Your task to perform on an android device: Search for pizza restaurants on Maps Image 0: 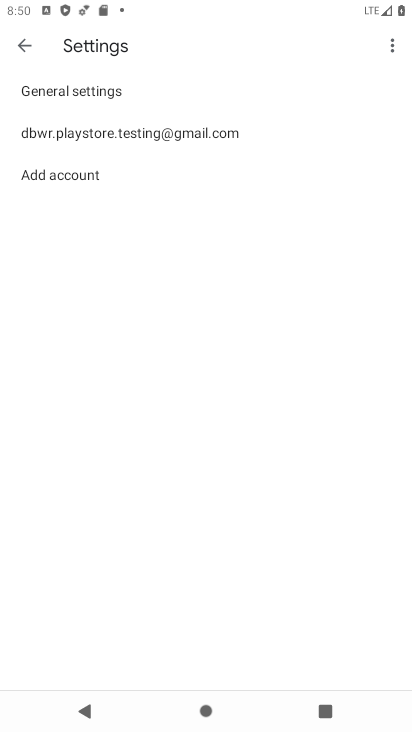
Step 0: press home button
Your task to perform on an android device: Search for pizza restaurants on Maps Image 1: 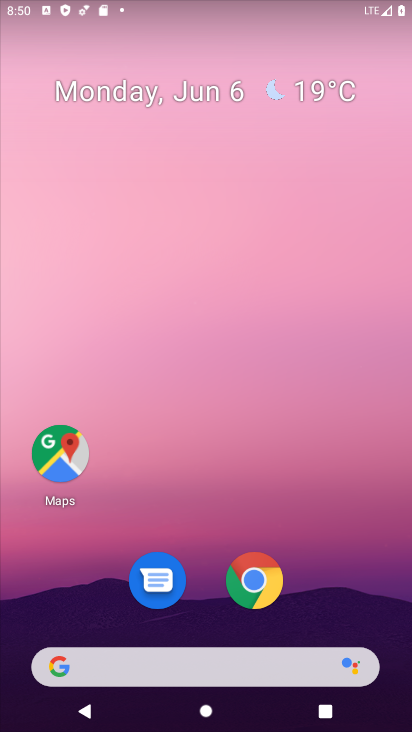
Step 1: drag from (331, 583) to (265, 7)
Your task to perform on an android device: Search for pizza restaurants on Maps Image 2: 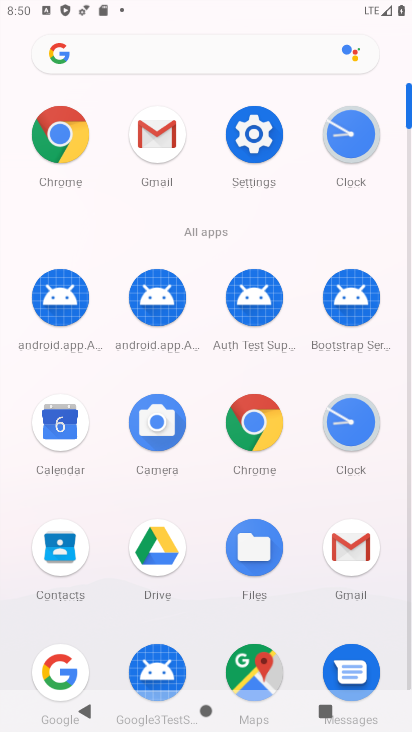
Step 2: click (248, 664)
Your task to perform on an android device: Search for pizza restaurants on Maps Image 3: 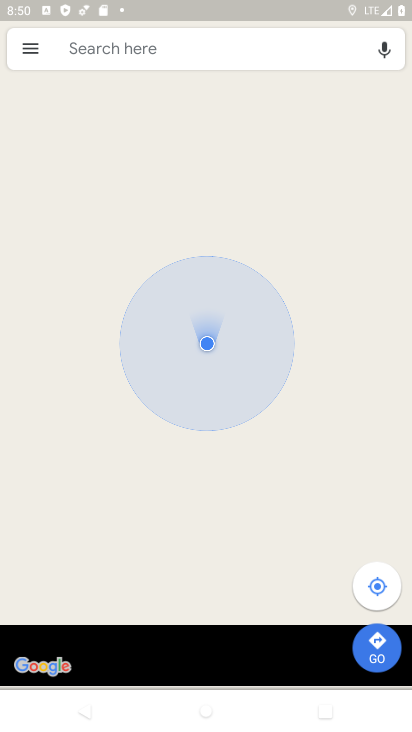
Step 3: click (162, 39)
Your task to perform on an android device: Search for pizza restaurants on Maps Image 4: 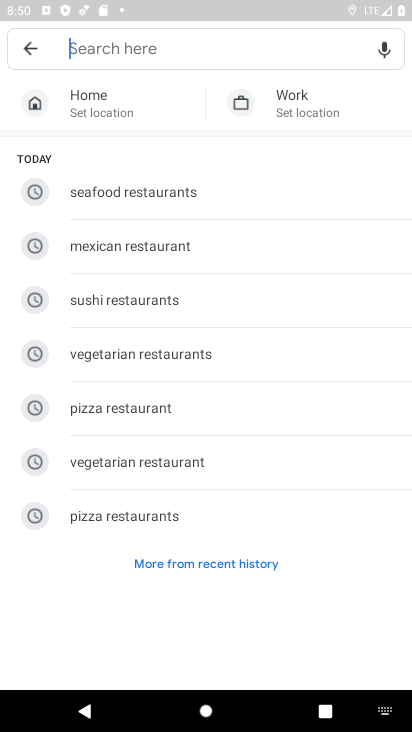
Step 4: click (71, 415)
Your task to perform on an android device: Search for pizza restaurants on Maps Image 5: 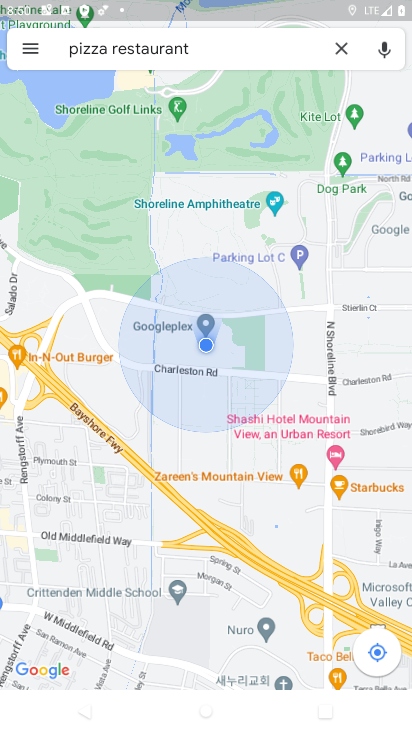
Step 5: task complete